Your task to perform on an android device: change notifications settings Image 0: 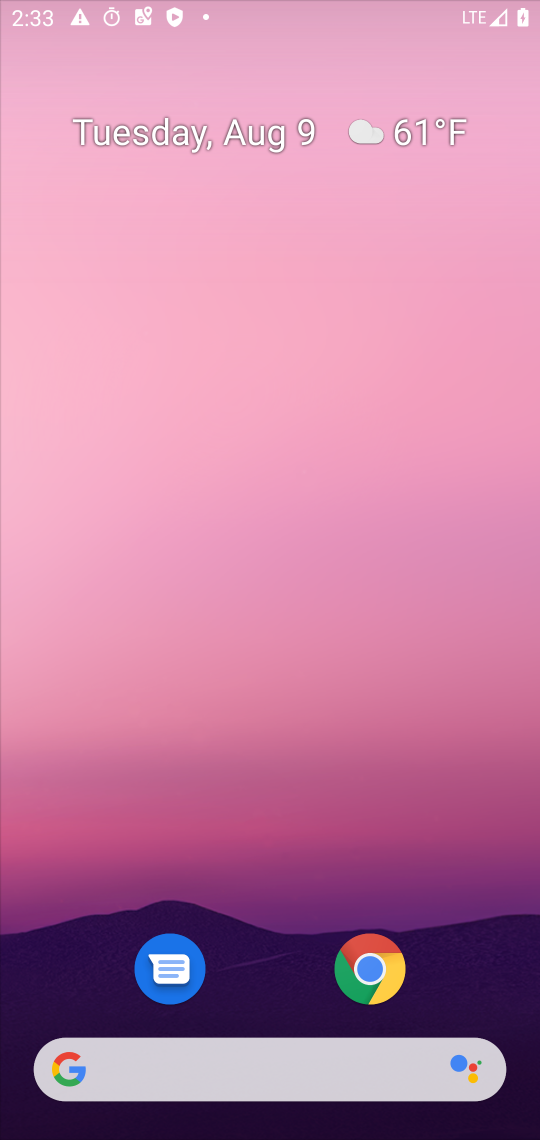
Step 0: press home button
Your task to perform on an android device: change notifications settings Image 1: 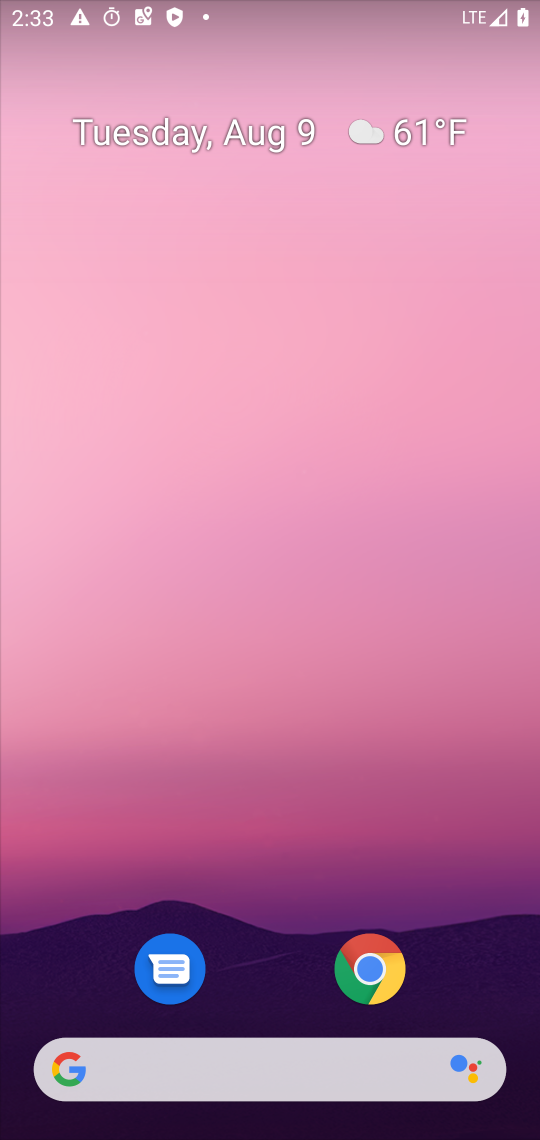
Step 1: drag from (281, 1101) to (133, 320)
Your task to perform on an android device: change notifications settings Image 2: 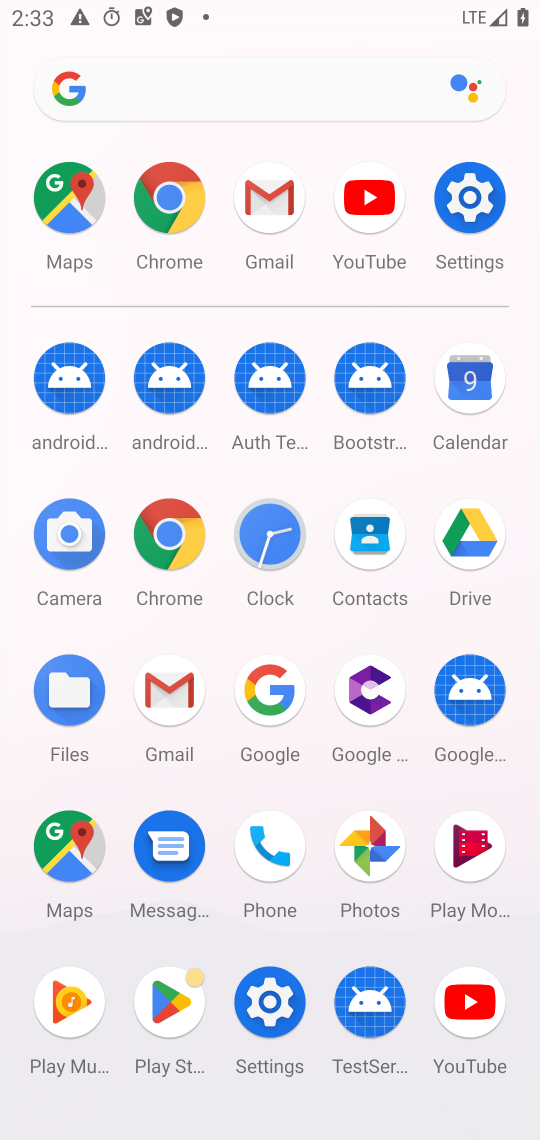
Step 2: click (283, 1017)
Your task to perform on an android device: change notifications settings Image 3: 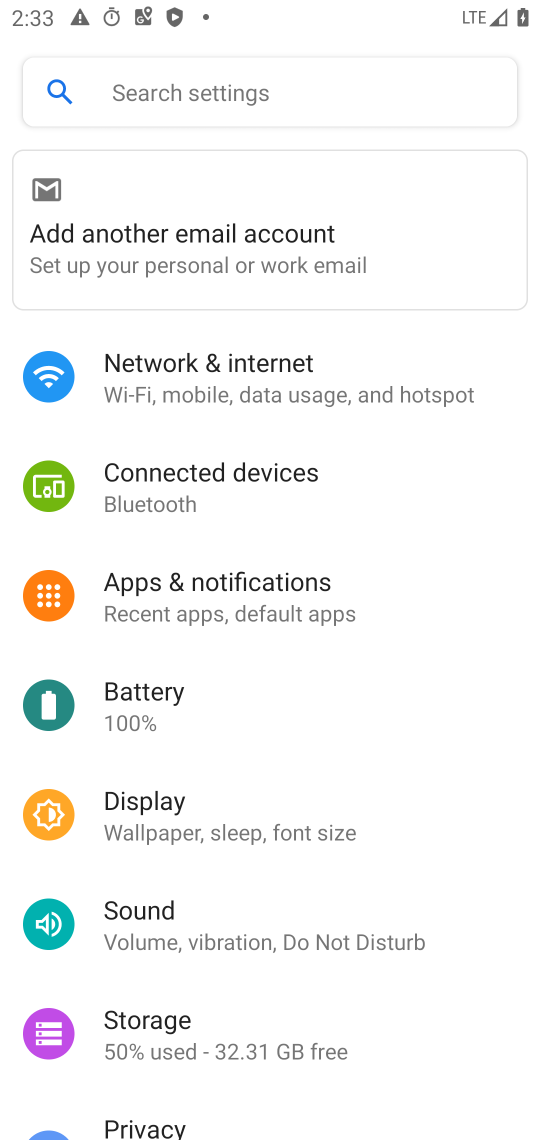
Step 3: click (207, 101)
Your task to perform on an android device: change notifications settings Image 4: 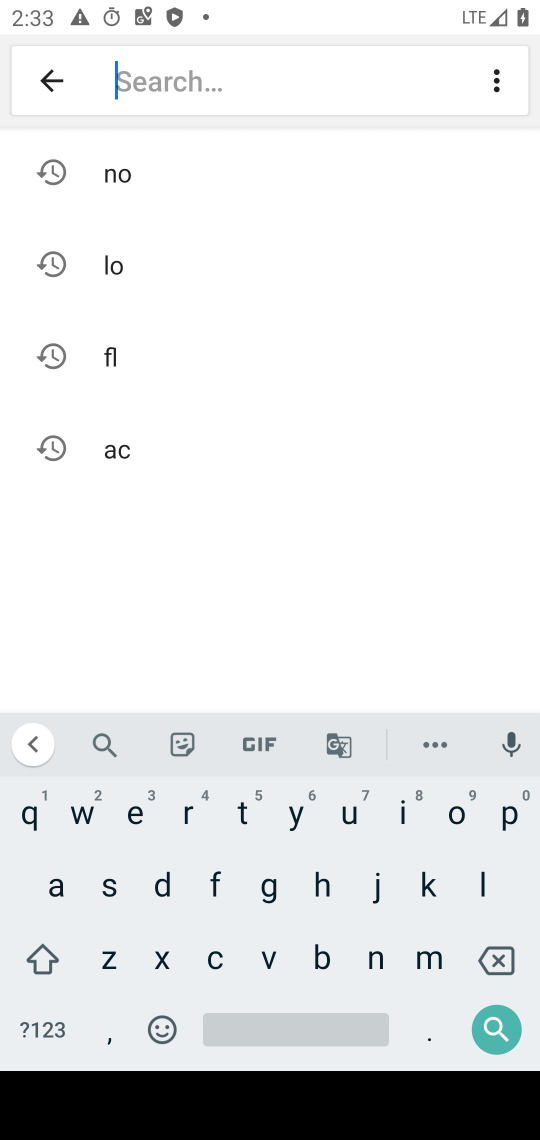
Step 4: click (200, 187)
Your task to perform on an android device: change notifications settings Image 5: 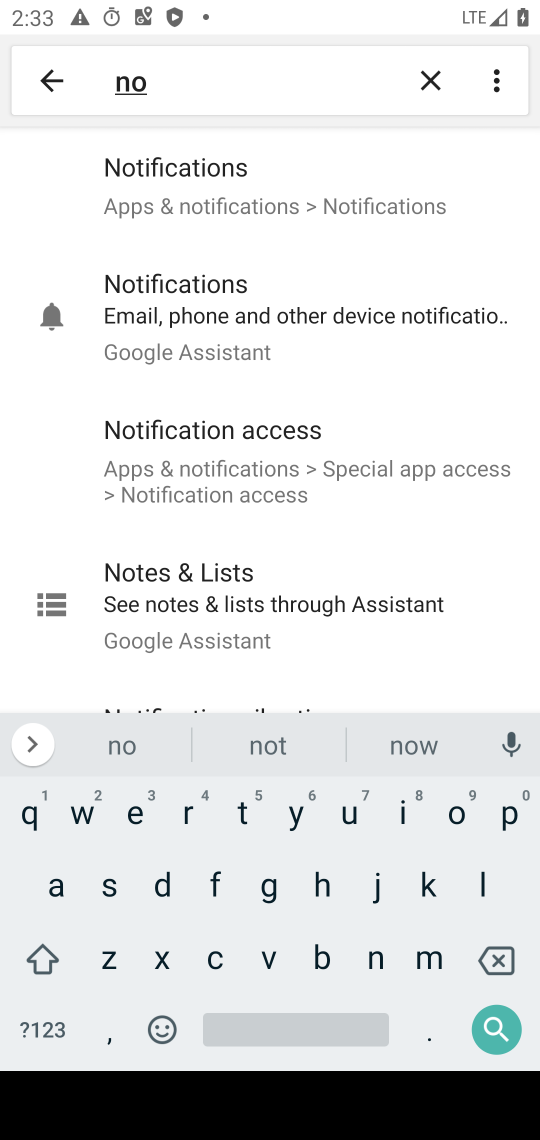
Step 5: click (252, 183)
Your task to perform on an android device: change notifications settings Image 6: 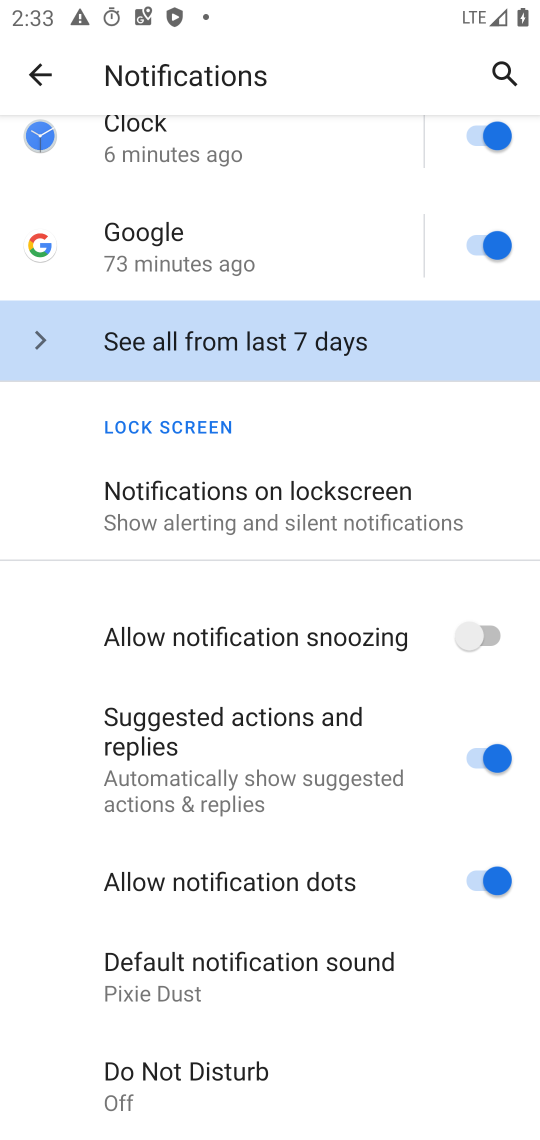
Step 6: click (227, 497)
Your task to perform on an android device: change notifications settings Image 7: 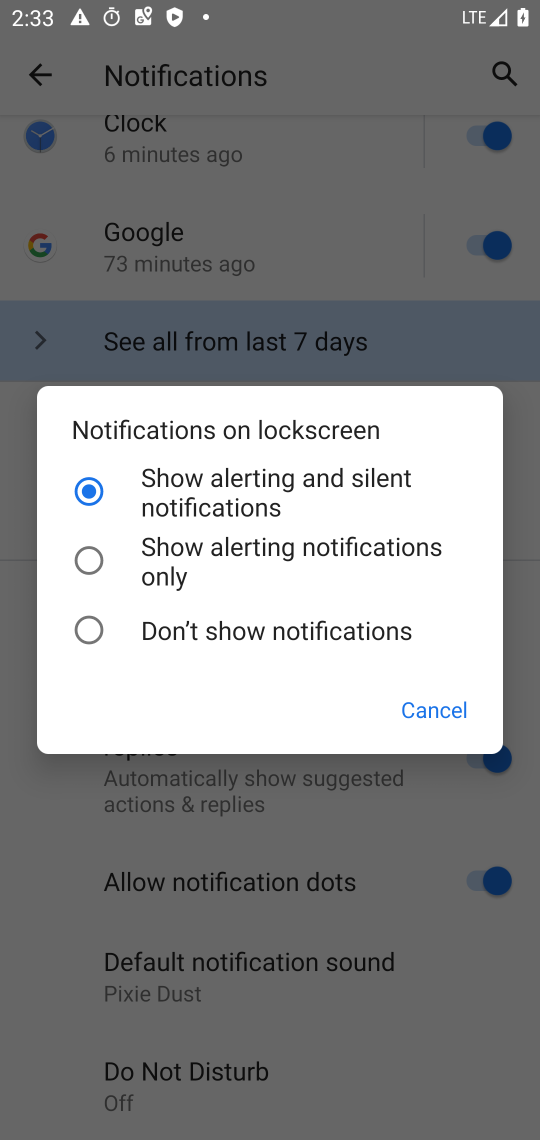
Step 7: click (172, 565)
Your task to perform on an android device: change notifications settings Image 8: 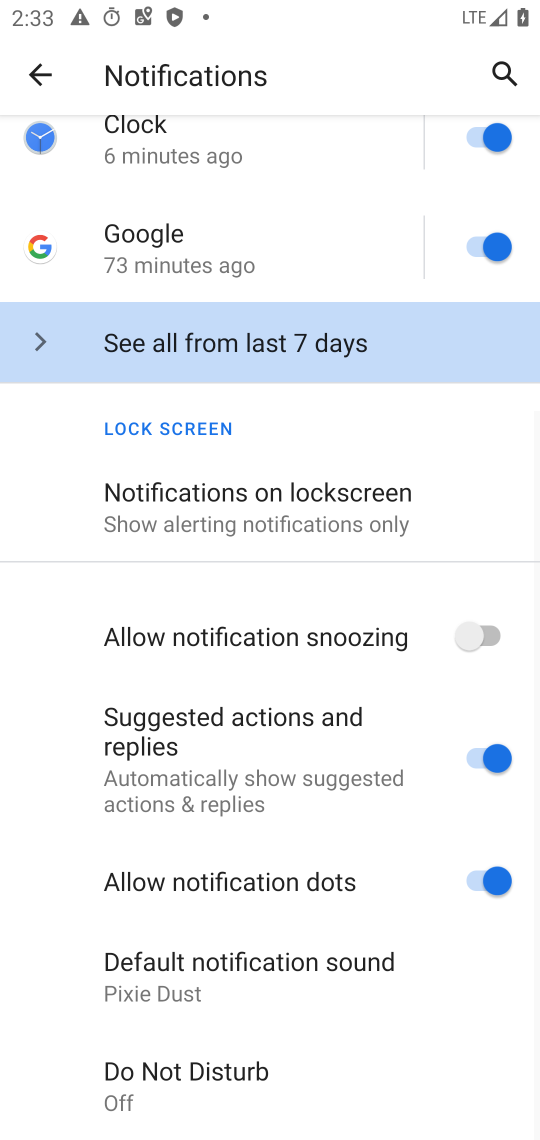
Step 8: click (205, 531)
Your task to perform on an android device: change notifications settings Image 9: 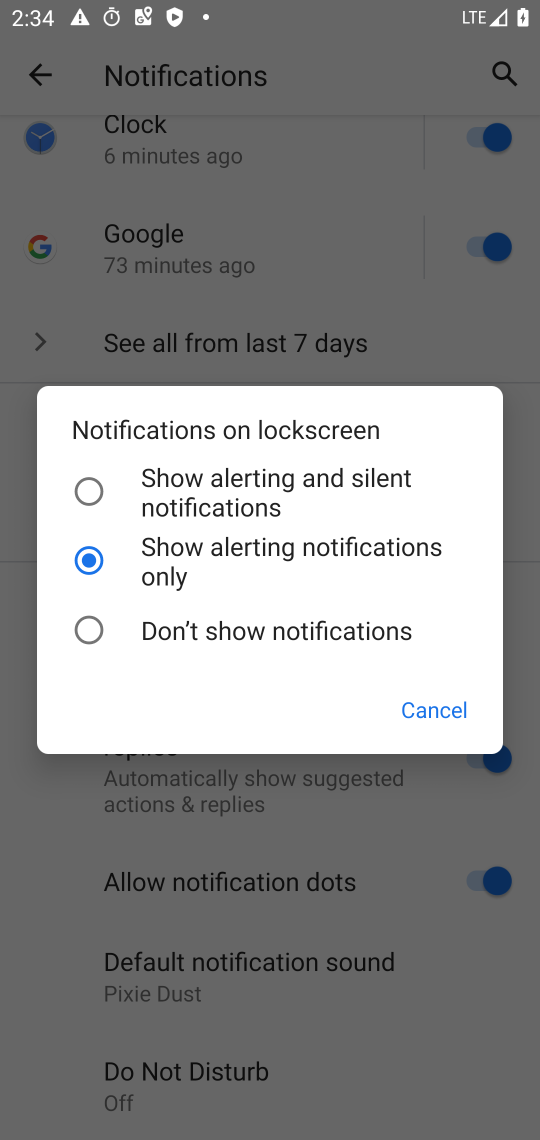
Step 9: task complete